Your task to perform on an android device: Open my contact list Image 0: 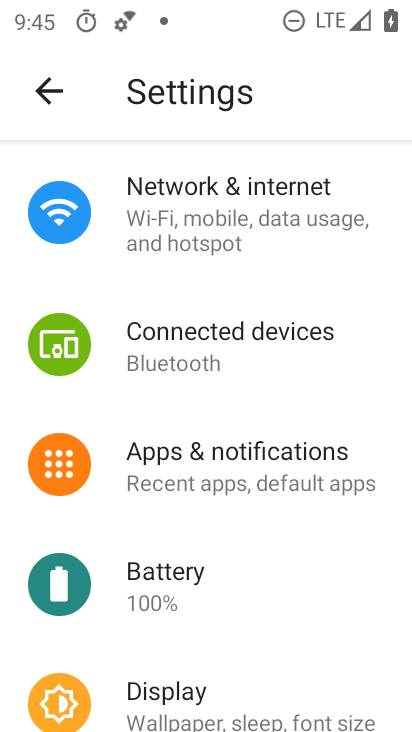
Step 0: press home button
Your task to perform on an android device: Open my contact list Image 1: 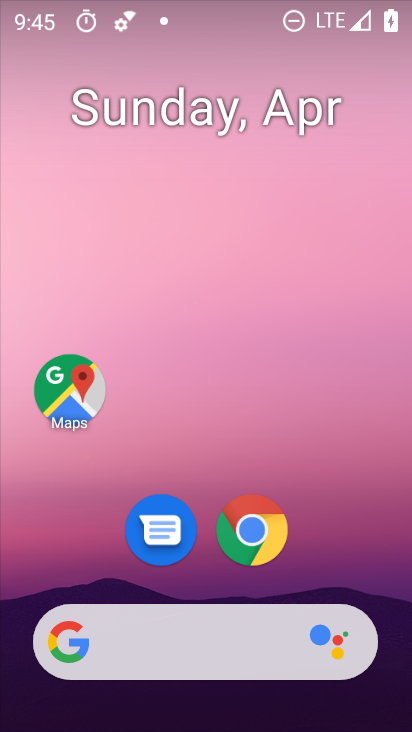
Step 1: drag from (393, 576) to (389, 53)
Your task to perform on an android device: Open my contact list Image 2: 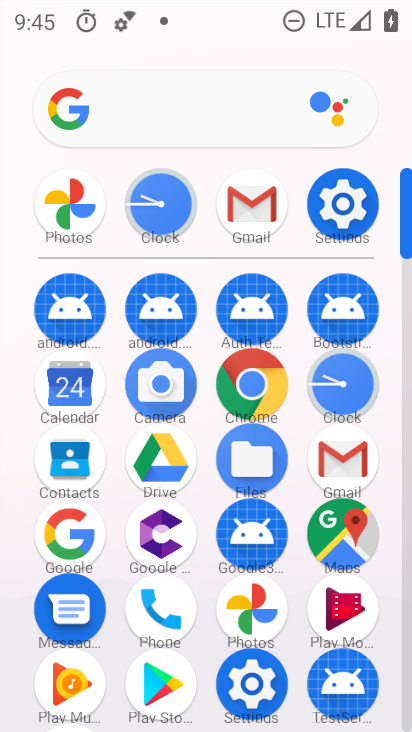
Step 2: click (61, 473)
Your task to perform on an android device: Open my contact list Image 3: 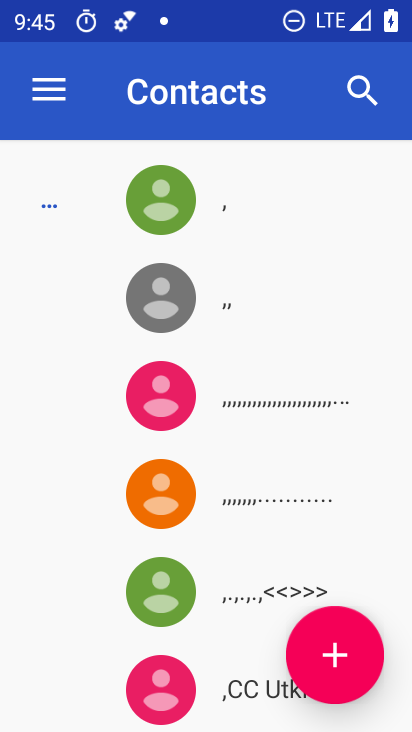
Step 3: task complete